Your task to perform on an android device: Go to Maps Image 0: 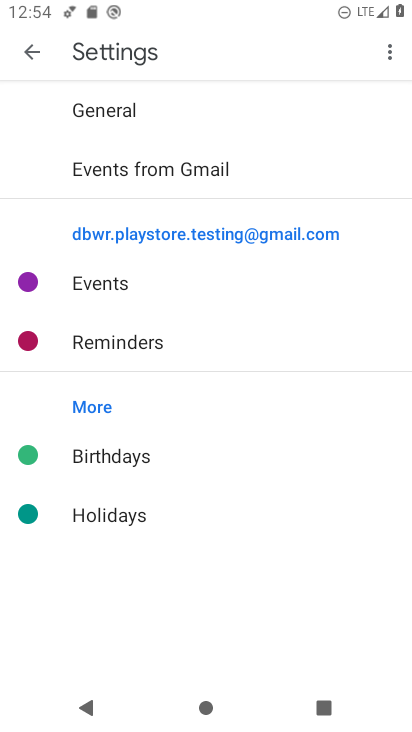
Step 0: press home button
Your task to perform on an android device: Go to Maps Image 1: 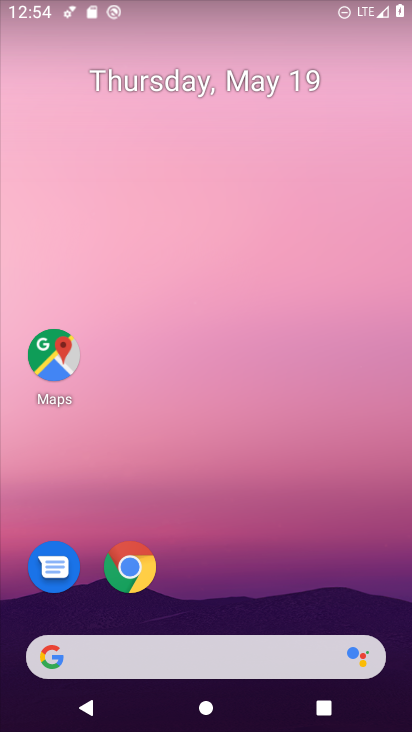
Step 1: click (56, 357)
Your task to perform on an android device: Go to Maps Image 2: 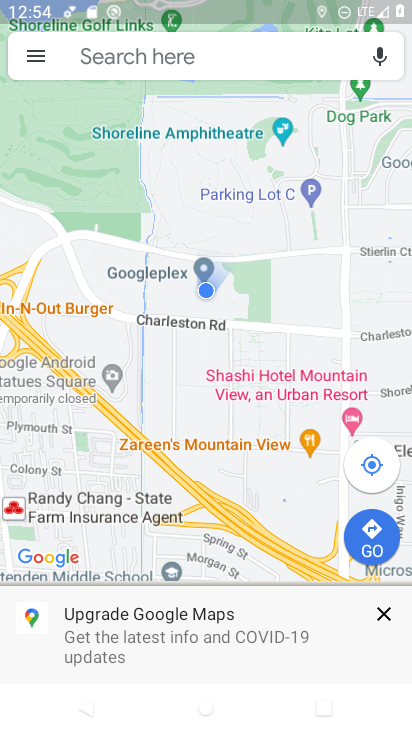
Step 2: task complete